Your task to perform on an android device: Open my contact list Image 0: 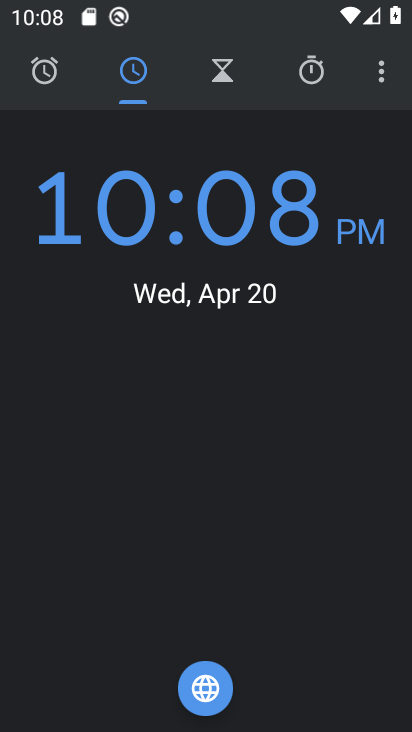
Step 0: press home button
Your task to perform on an android device: Open my contact list Image 1: 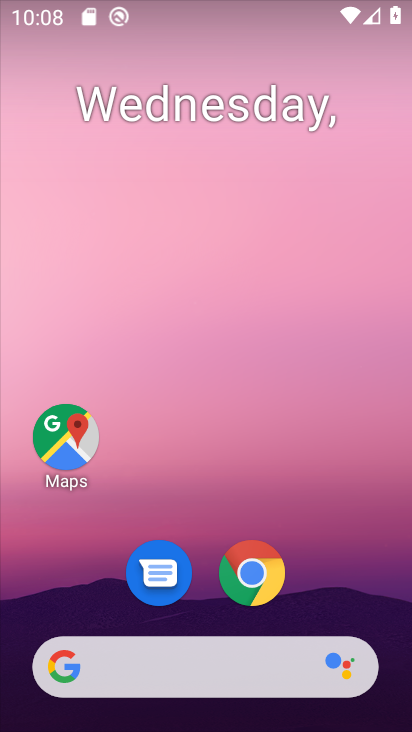
Step 1: drag from (237, 620) to (254, 78)
Your task to perform on an android device: Open my contact list Image 2: 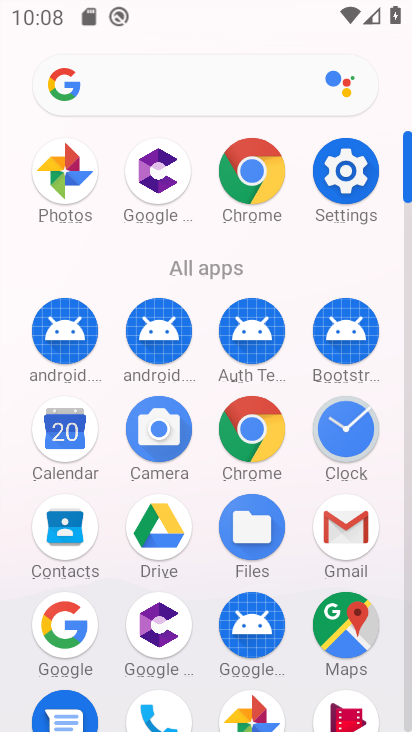
Step 2: click (59, 539)
Your task to perform on an android device: Open my contact list Image 3: 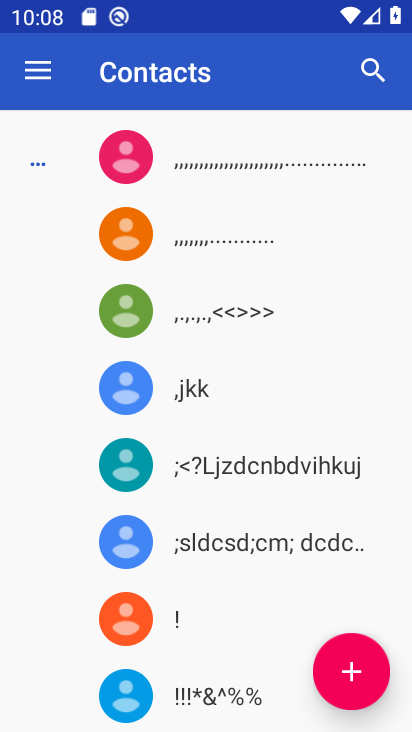
Step 3: click (373, 653)
Your task to perform on an android device: Open my contact list Image 4: 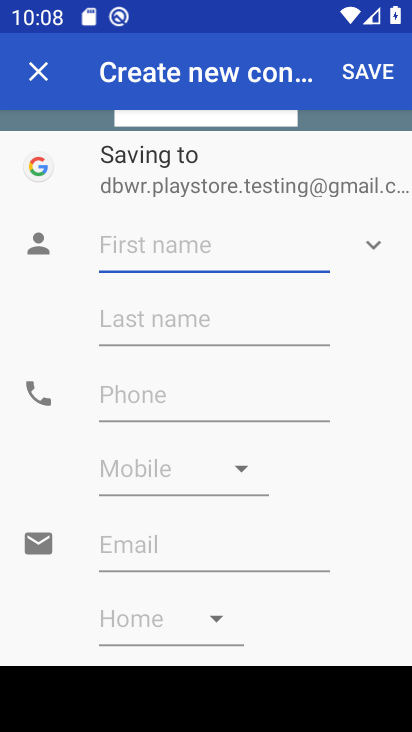
Step 4: click (202, 259)
Your task to perform on an android device: Open my contact list Image 5: 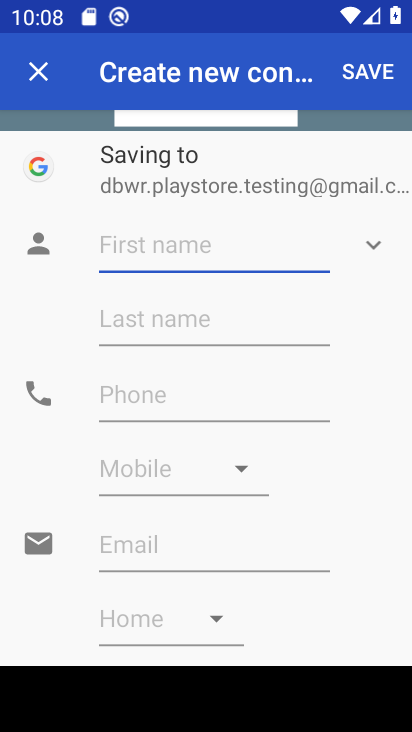
Step 5: type "efrgrtrrt"
Your task to perform on an android device: Open my contact list Image 6: 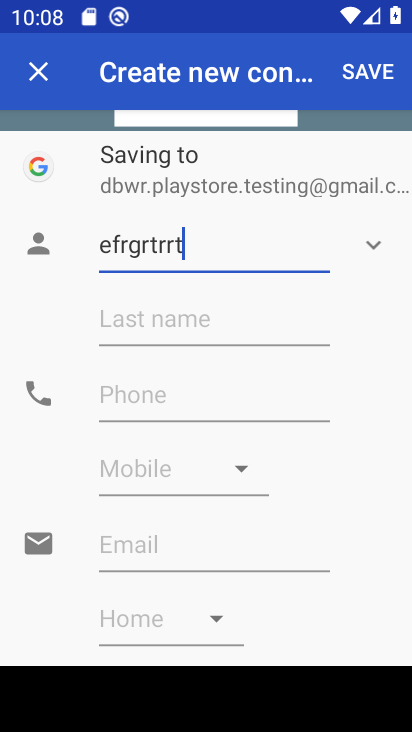
Step 6: click (224, 411)
Your task to perform on an android device: Open my contact list Image 7: 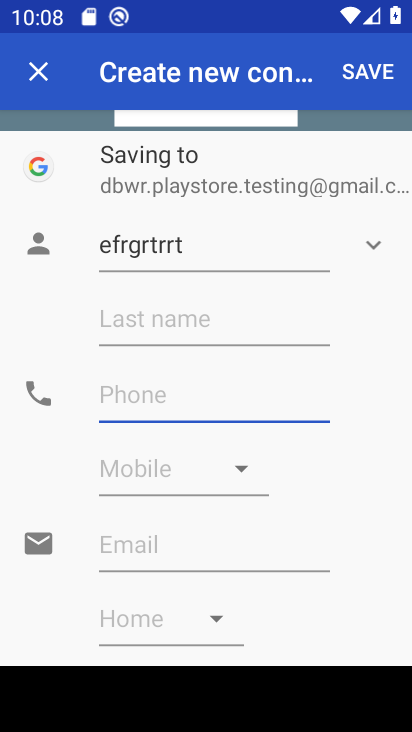
Step 7: type "75544444444"
Your task to perform on an android device: Open my contact list Image 8: 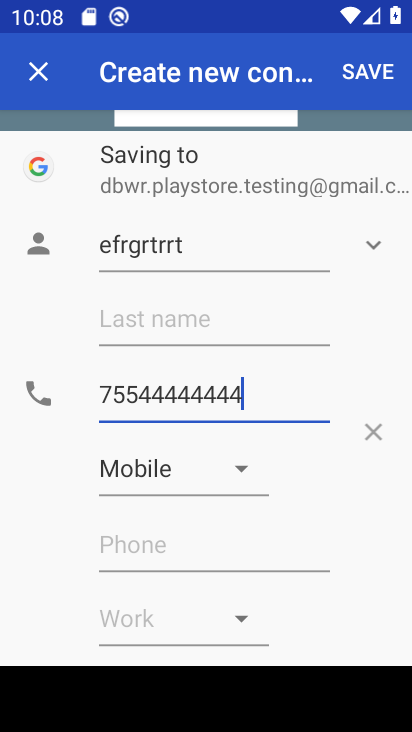
Step 8: click (388, 78)
Your task to perform on an android device: Open my contact list Image 9: 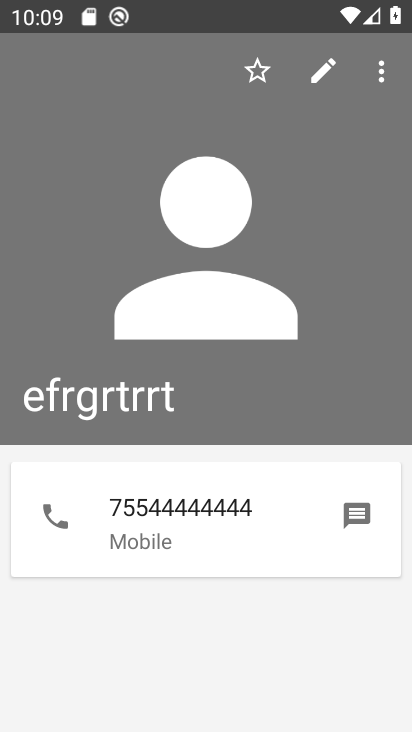
Step 9: task complete